Your task to perform on an android device: Open maps Image 0: 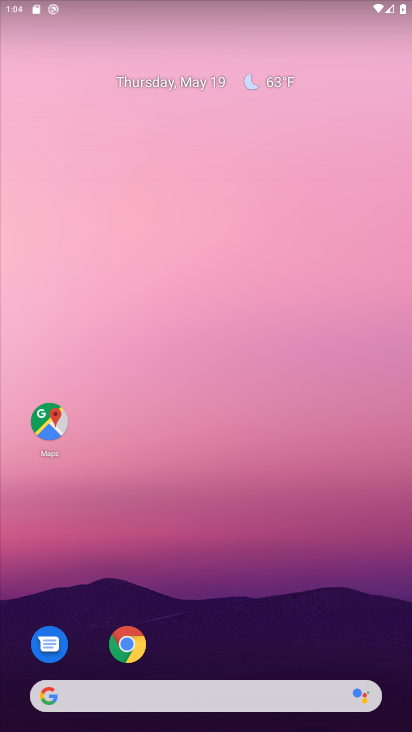
Step 0: click (48, 418)
Your task to perform on an android device: Open maps Image 1: 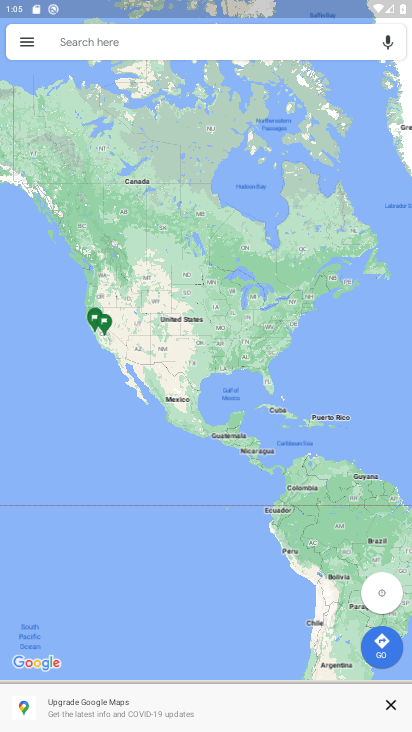
Step 1: press home button
Your task to perform on an android device: Open maps Image 2: 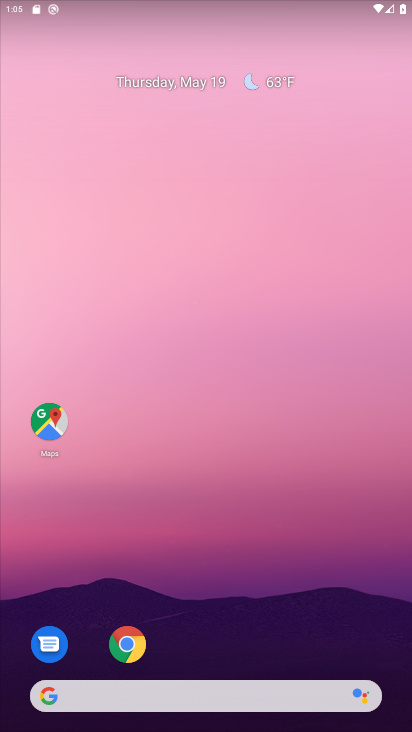
Step 2: click (48, 416)
Your task to perform on an android device: Open maps Image 3: 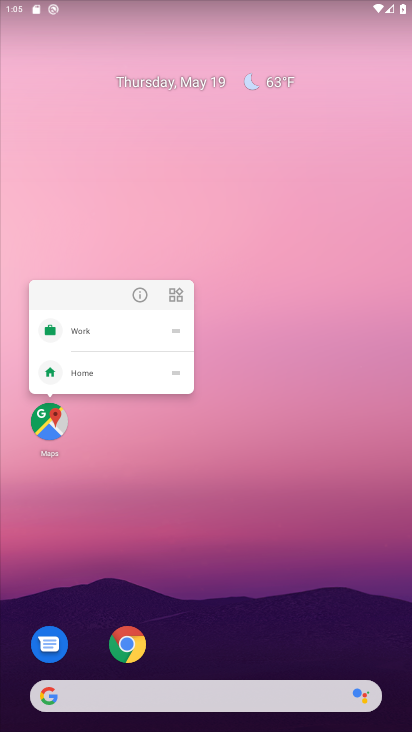
Step 3: click (46, 419)
Your task to perform on an android device: Open maps Image 4: 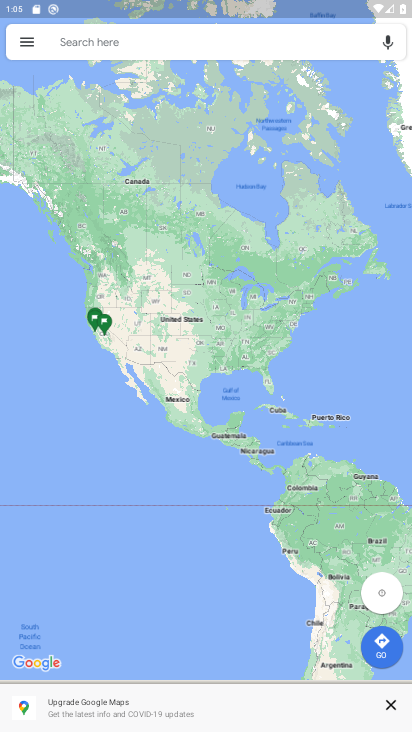
Step 4: task complete